Your task to perform on an android device: Open Google Chrome and open the bookmarks view Image 0: 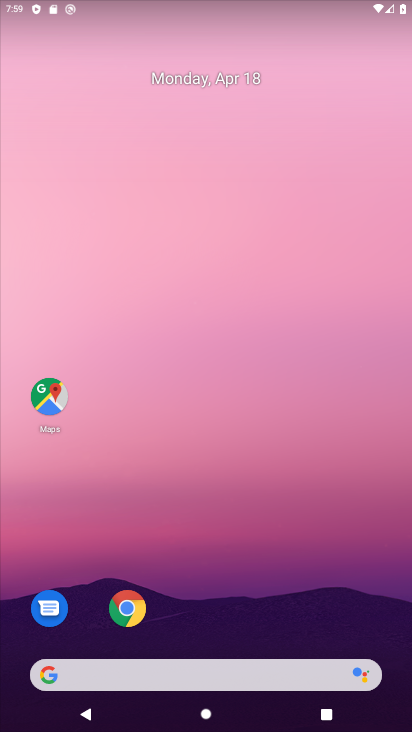
Step 0: click (131, 607)
Your task to perform on an android device: Open Google Chrome and open the bookmarks view Image 1: 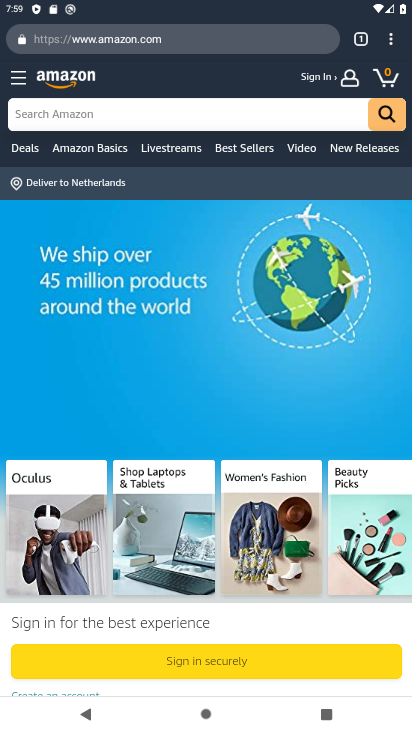
Step 1: click (390, 34)
Your task to perform on an android device: Open Google Chrome and open the bookmarks view Image 2: 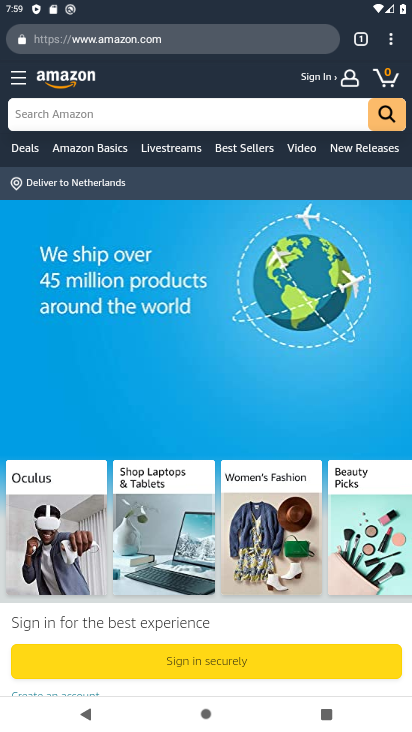
Step 2: click (394, 34)
Your task to perform on an android device: Open Google Chrome and open the bookmarks view Image 3: 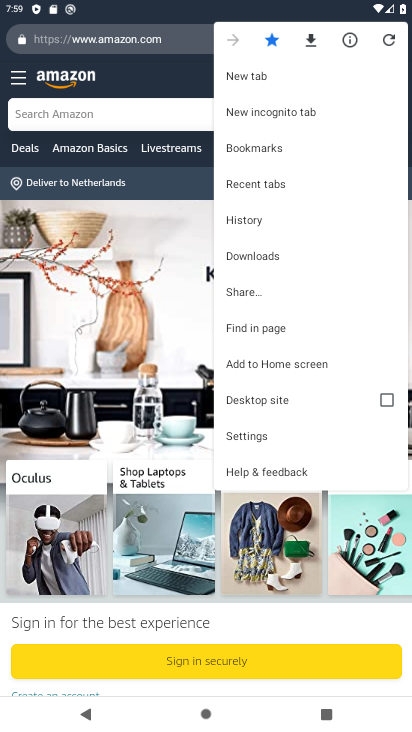
Step 3: click (272, 153)
Your task to perform on an android device: Open Google Chrome and open the bookmarks view Image 4: 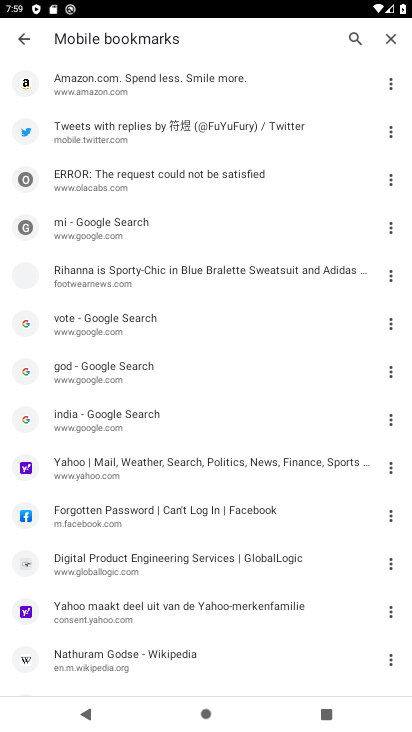
Step 4: click (187, 127)
Your task to perform on an android device: Open Google Chrome and open the bookmarks view Image 5: 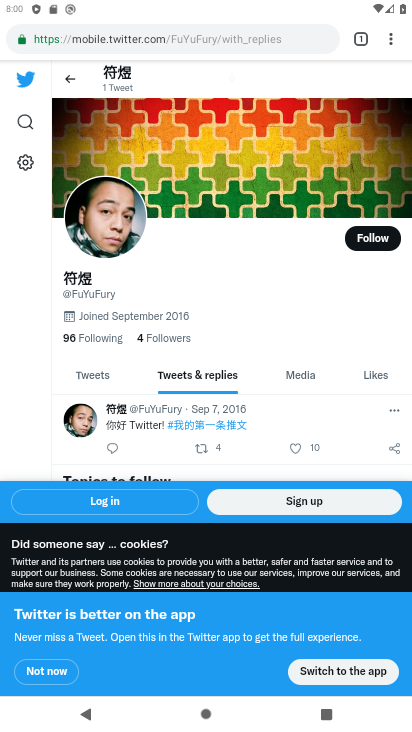
Step 5: task complete